Your task to perform on an android device: search for starred emails in the gmail app Image 0: 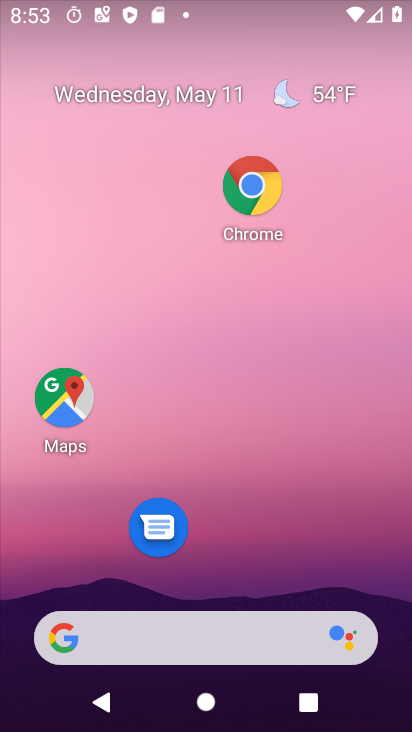
Step 0: drag from (248, 550) to (170, 108)
Your task to perform on an android device: search for starred emails in the gmail app Image 1: 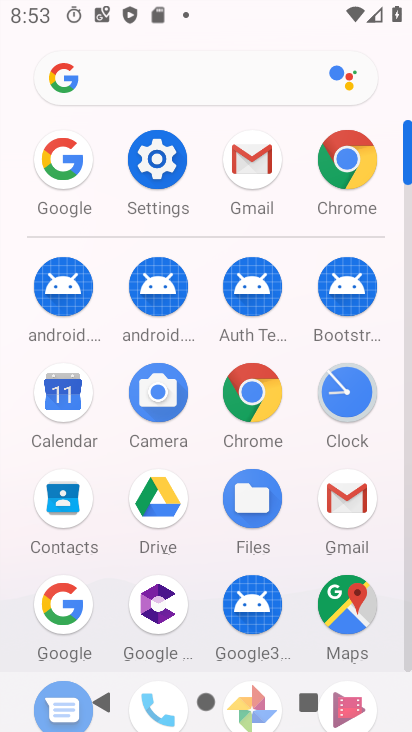
Step 1: click (256, 157)
Your task to perform on an android device: search for starred emails in the gmail app Image 2: 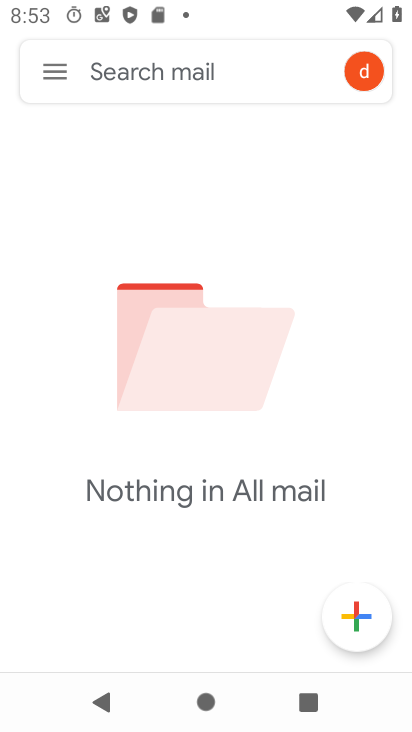
Step 2: click (61, 70)
Your task to perform on an android device: search for starred emails in the gmail app Image 3: 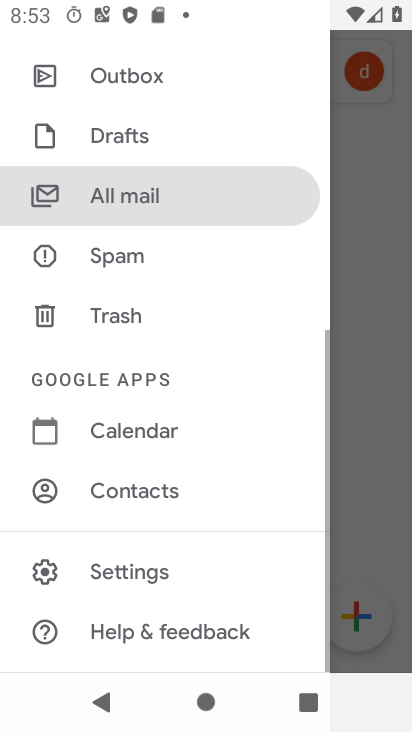
Step 3: drag from (164, 399) to (191, 623)
Your task to perform on an android device: search for starred emails in the gmail app Image 4: 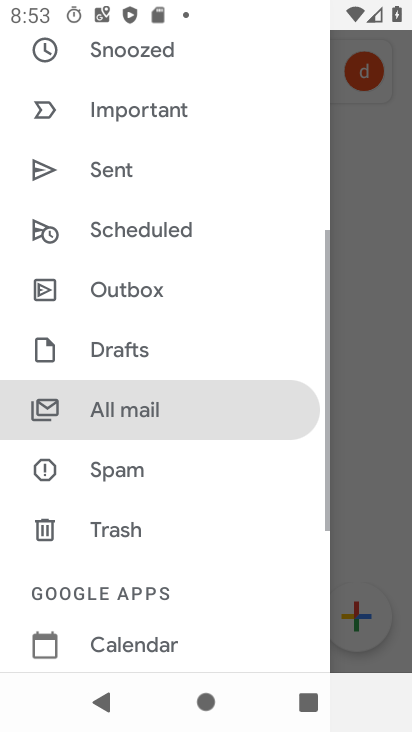
Step 4: drag from (103, 86) to (170, 512)
Your task to perform on an android device: search for starred emails in the gmail app Image 5: 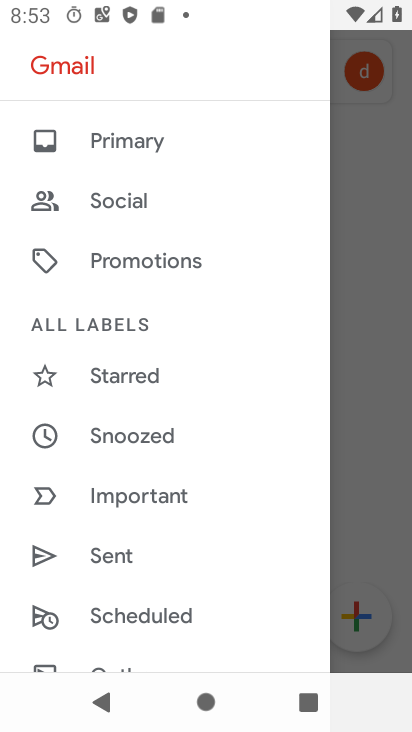
Step 5: click (124, 380)
Your task to perform on an android device: search for starred emails in the gmail app Image 6: 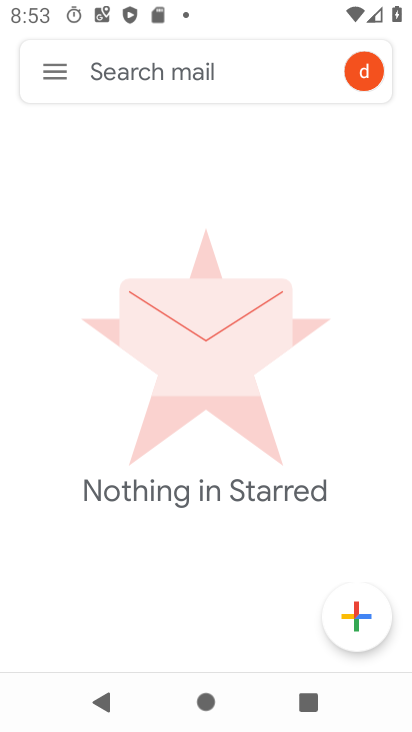
Step 6: task complete